Your task to perform on an android device: check google app version Image 0: 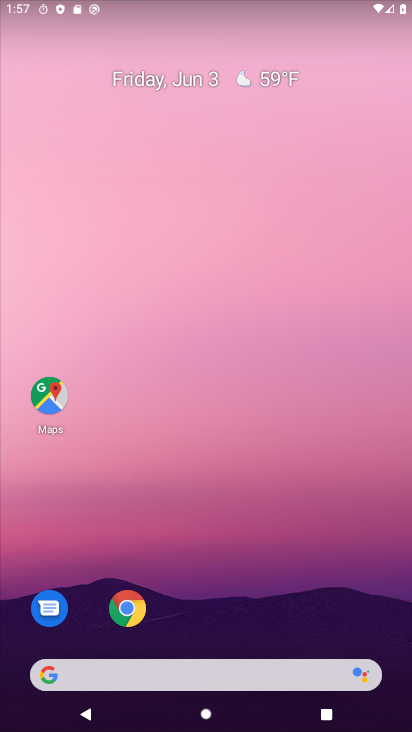
Step 0: click (141, 611)
Your task to perform on an android device: check google app version Image 1: 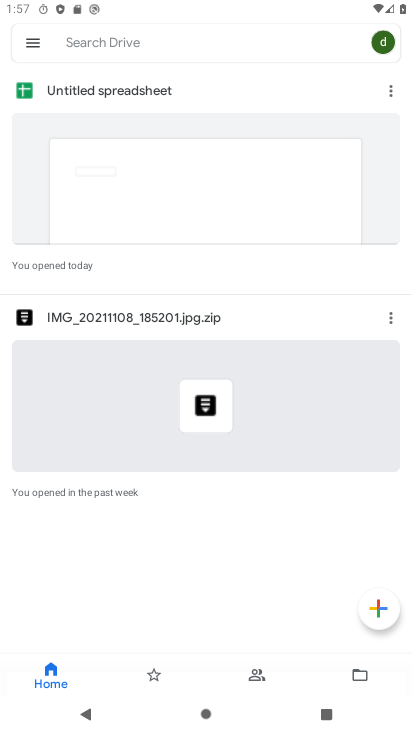
Step 1: press home button
Your task to perform on an android device: check google app version Image 2: 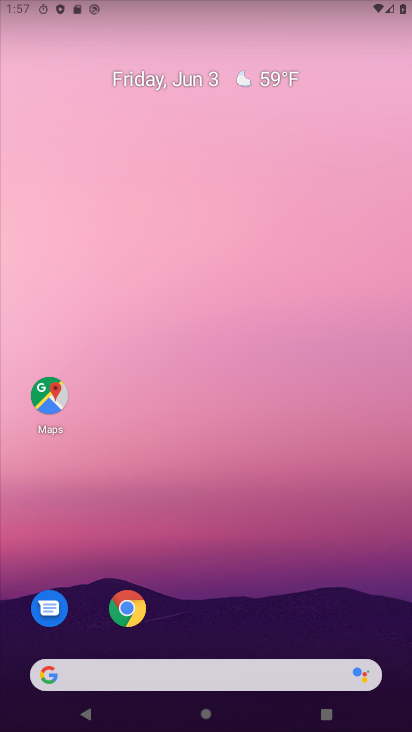
Step 2: drag from (174, 671) to (219, 168)
Your task to perform on an android device: check google app version Image 3: 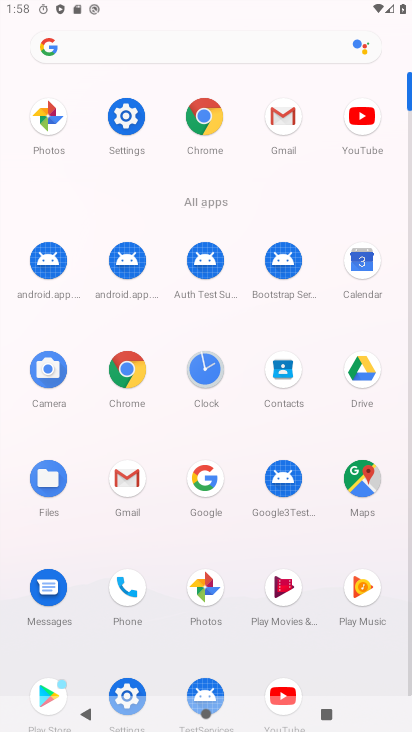
Step 3: click (199, 483)
Your task to perform on an android device: check google app version Image 4: 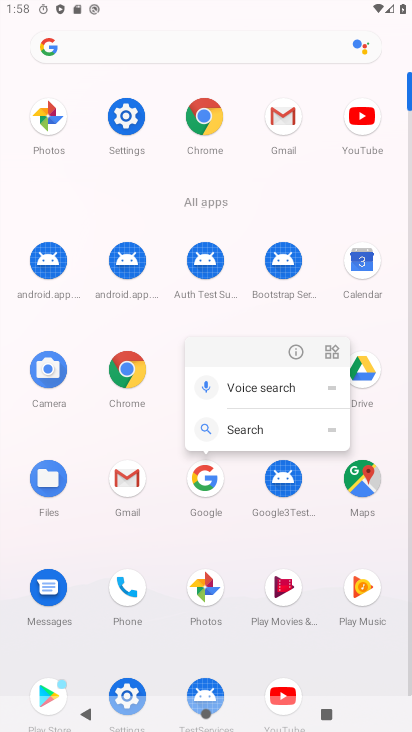
Step 4: click (290, 353)
Your task to perform on an android device: check google app version Image 5: 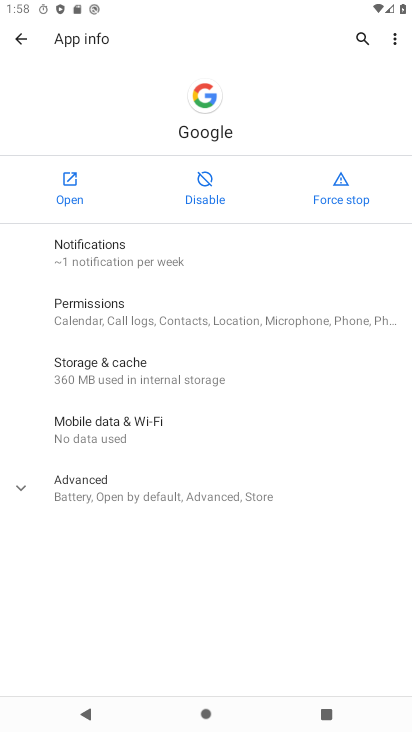
Step 5: click (186, 499)
Your task to perform on an android device: check google app version Image 6: 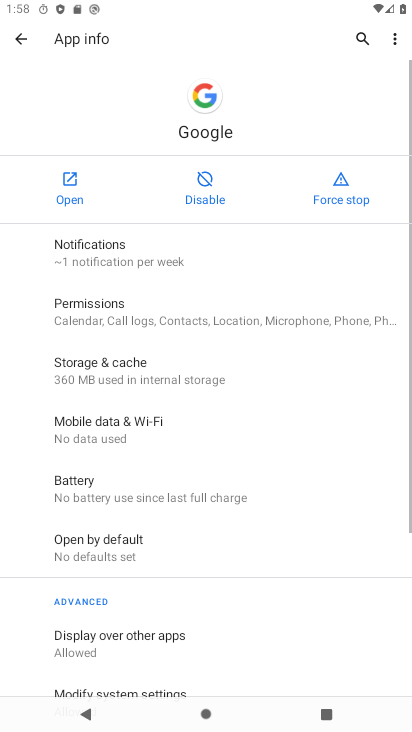
Step 6: task complete